Your task to perform on an android device: check android version Image 0: 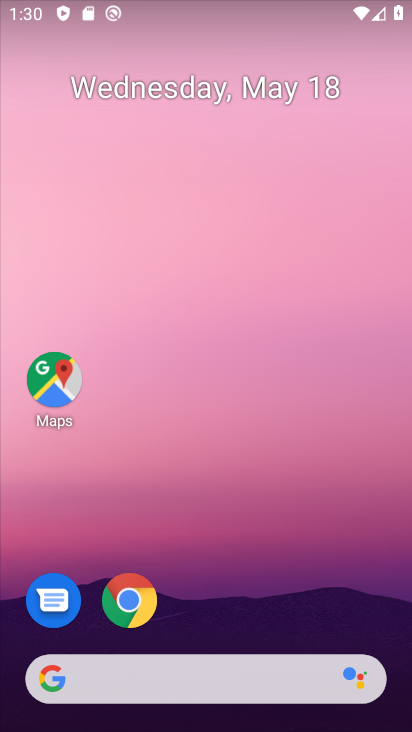
Step 0: drag from (216, 645) to (238, 133)
Your task to perform on an android device: check android version Image 1: 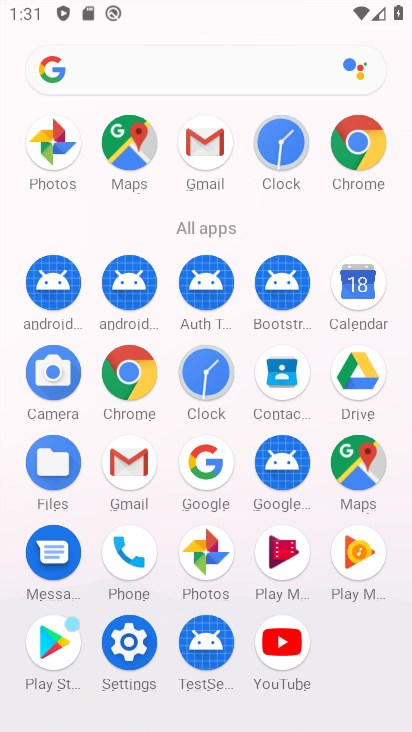
Step 1: drag from (173, 570) to (161, 164)
Your task to perform on an android device: check android version Image 2: 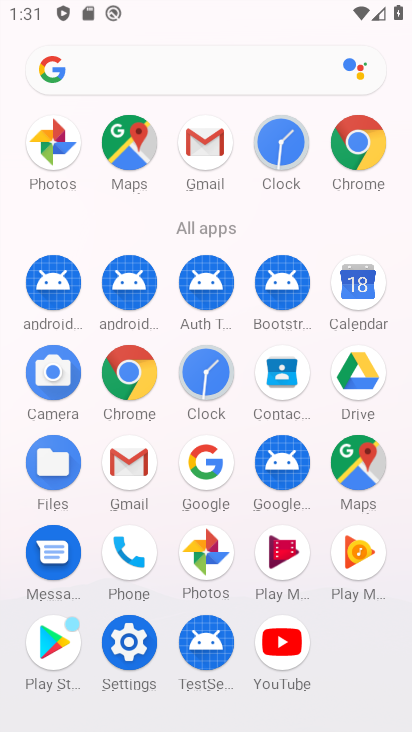
Step 2: click (121, 652)
Your task to perform on an android device: check android version Image 3: 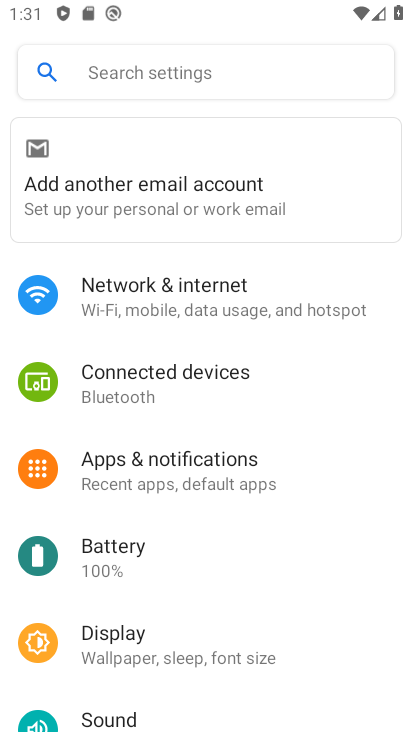
Step 3: task complete